Your task to perform on an android device: turn on javascript in the chrome app Image 0: 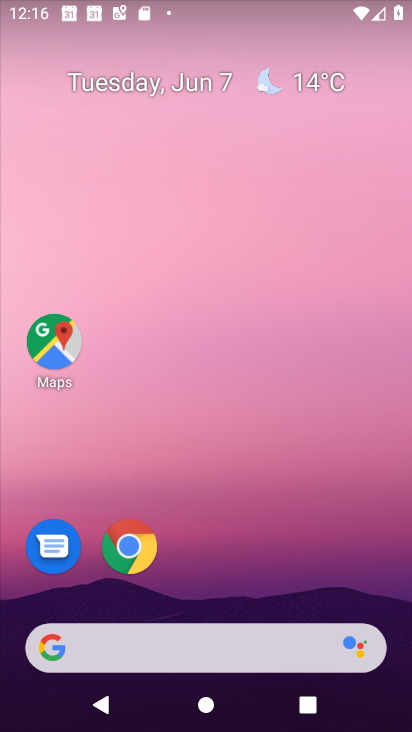
Step 0: click (145, 546)
Your task to perform on an android device: turn on javascript in the chrome app Image 1: 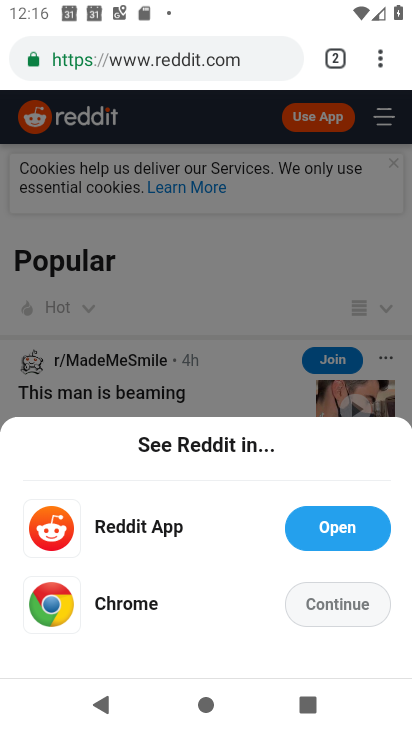
Step 1: click (385, 60)
Your task to perform on an android device: turn on javascript in the chrome app Image 2: 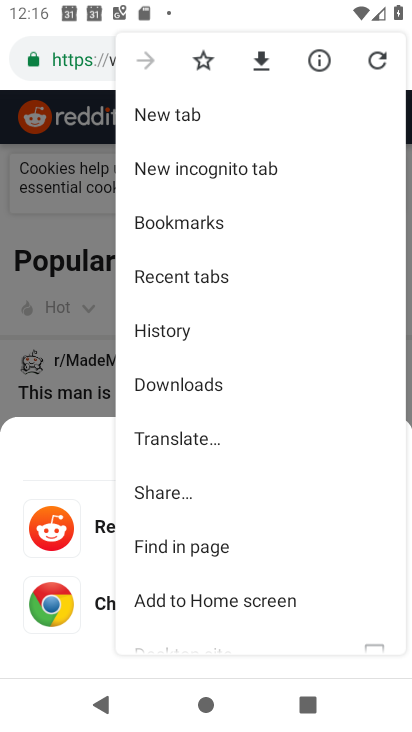
Step 2: drag from (176, 558) to (222, 338)
Your task to perform on an android device: turn on javascript in the chrome app Image 3: 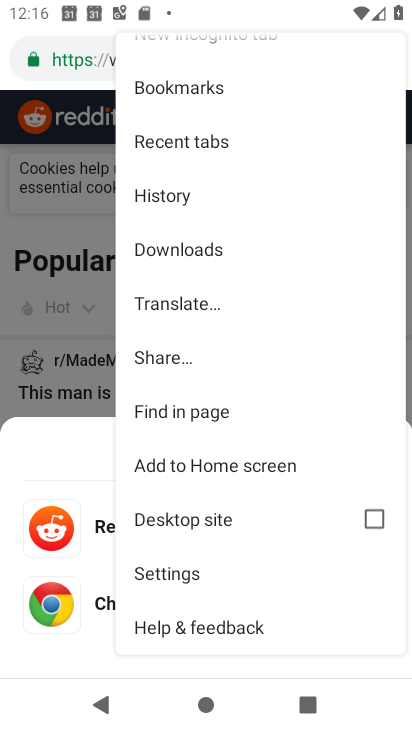
Step 3: click (160, 574)
Your task to perform on an android device: turn on javascript in the chrome app Image 4: 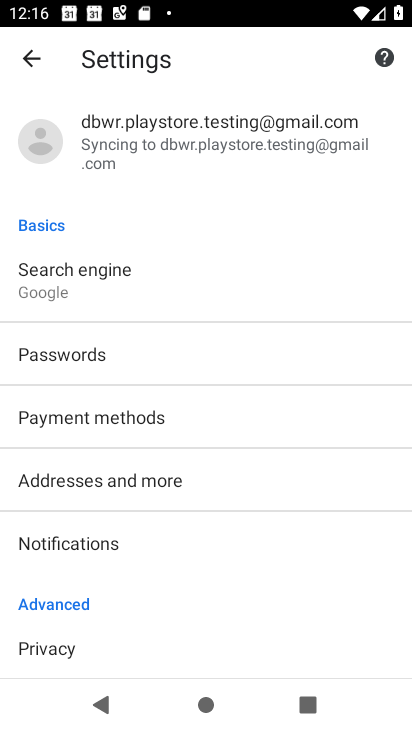
Step 4: drag from (146, 517) to (186, 274)
Your task to perform on an android device: turn on javascript in the chrome app Image 5: 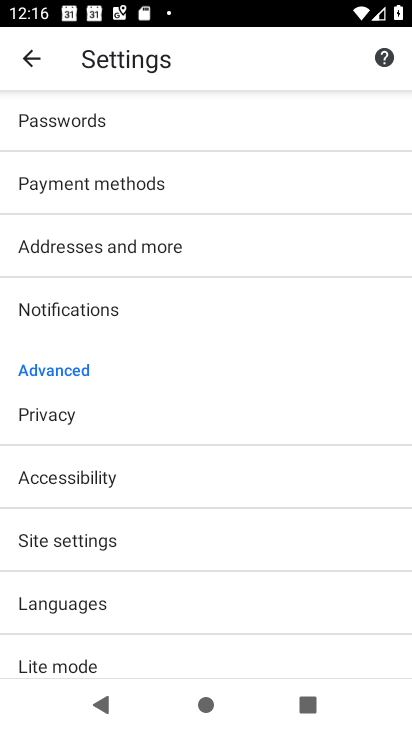
Step 5: click (60, 542)
Your task to perform on an android device: turn on javascript in the chrome app Image 6: 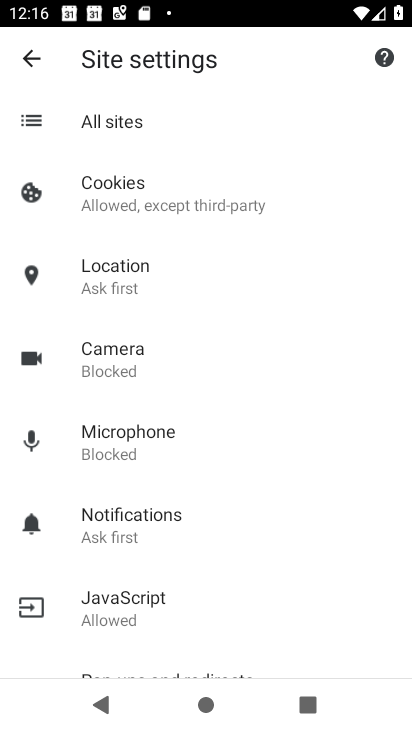
Step 6: click (139, 619)
Your task to perform on an android device: turn on javascript in the chrome app Image 7: 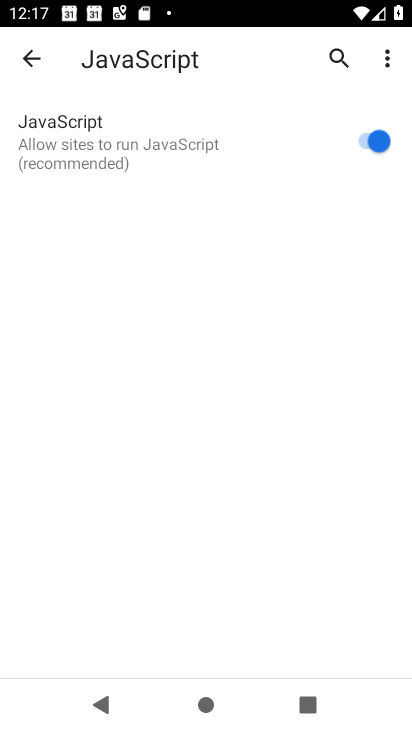
Step 7: click (190, 616)
Your task to perform on an android device: turn on javascript in the chrome app Image 8: 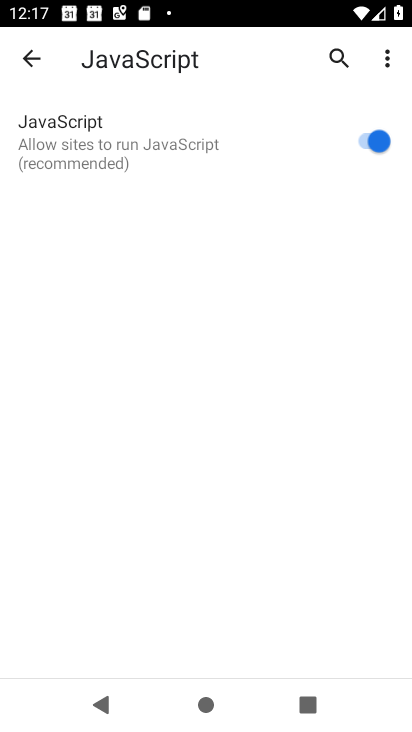
Step 8: task complete